Your task to perform on an android device: add a contact Image 0: 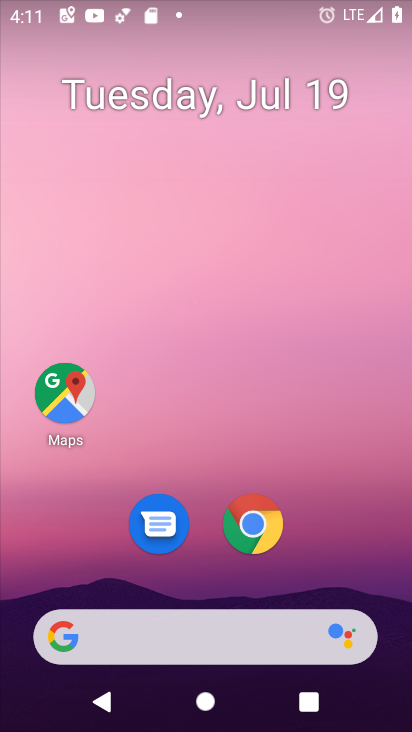
Step 0: drag from (328, 568) to (294, 20)
Your task to perform on an android device: add a contact Image 1: 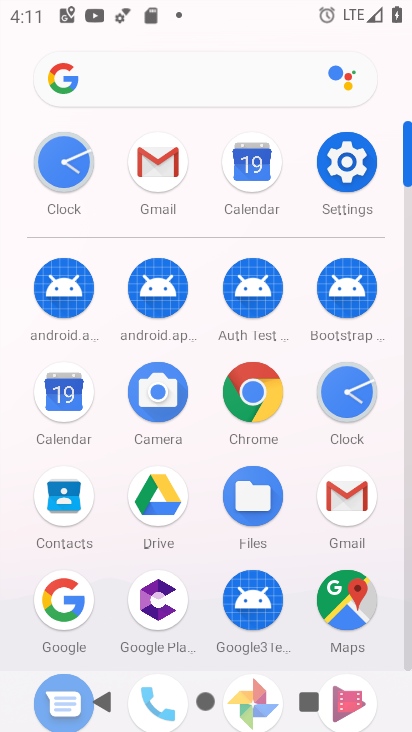
Step 1: click (57, 491)
Your task to perform on an android device: add a contact Image 2: 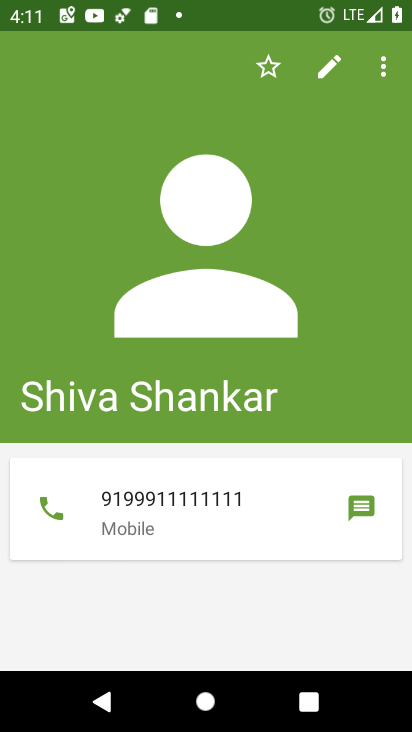
Step 2: press back button
Your task to perform on an android device: add a contact Image 3: 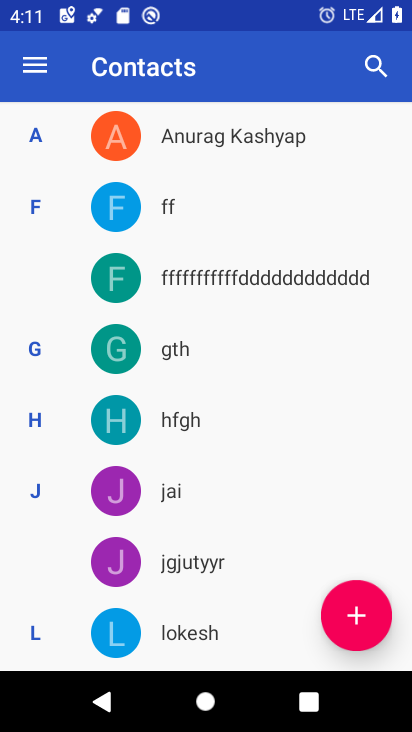
Step 3: click (363, 617)
Your task to perform on an android device: add a contact Image 4: 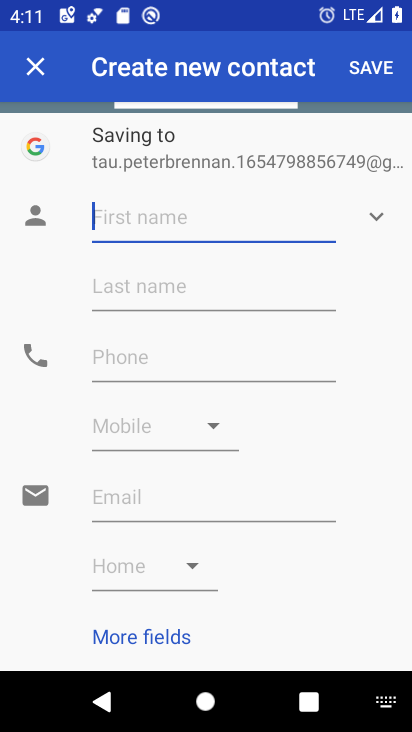
Step 4: type "Om Namo Shivay"
Your task to perform on an android device: add a contact Image 5: 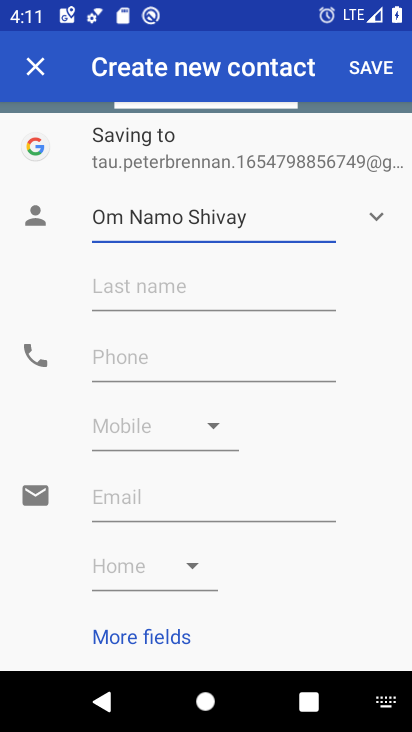
Step 5: click (244, 364)
Your task to perform on an android device: add a contact Image 6: 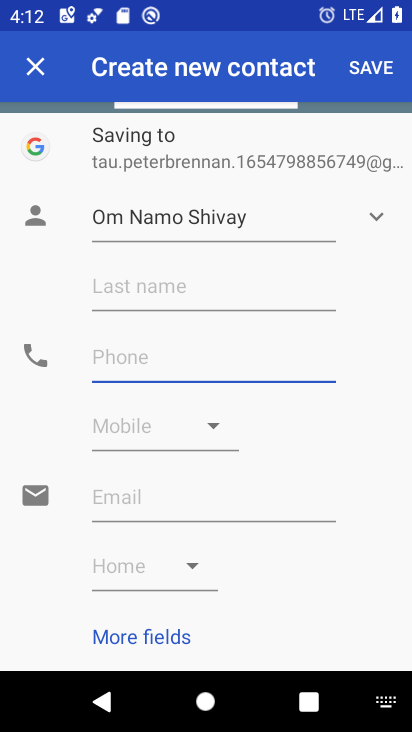
Step 6: type "9199977775533"
Your task to perform on an android device: add a contact Image 7: 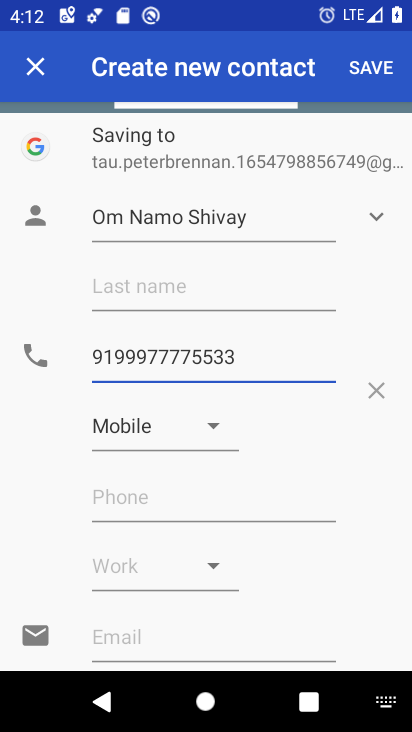
Step 7: click (375, 65)
Your task to perform on an android device: add a contact Image 8: 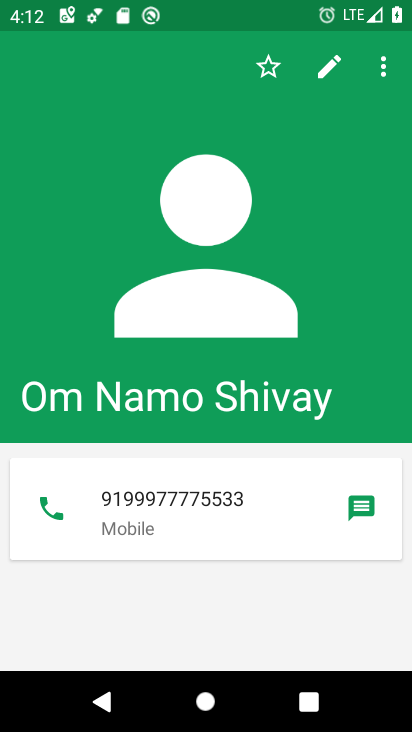
Step 8: task complete